Your task to perform on an android device: see tabs open on other devices in the chrome app Image 0: 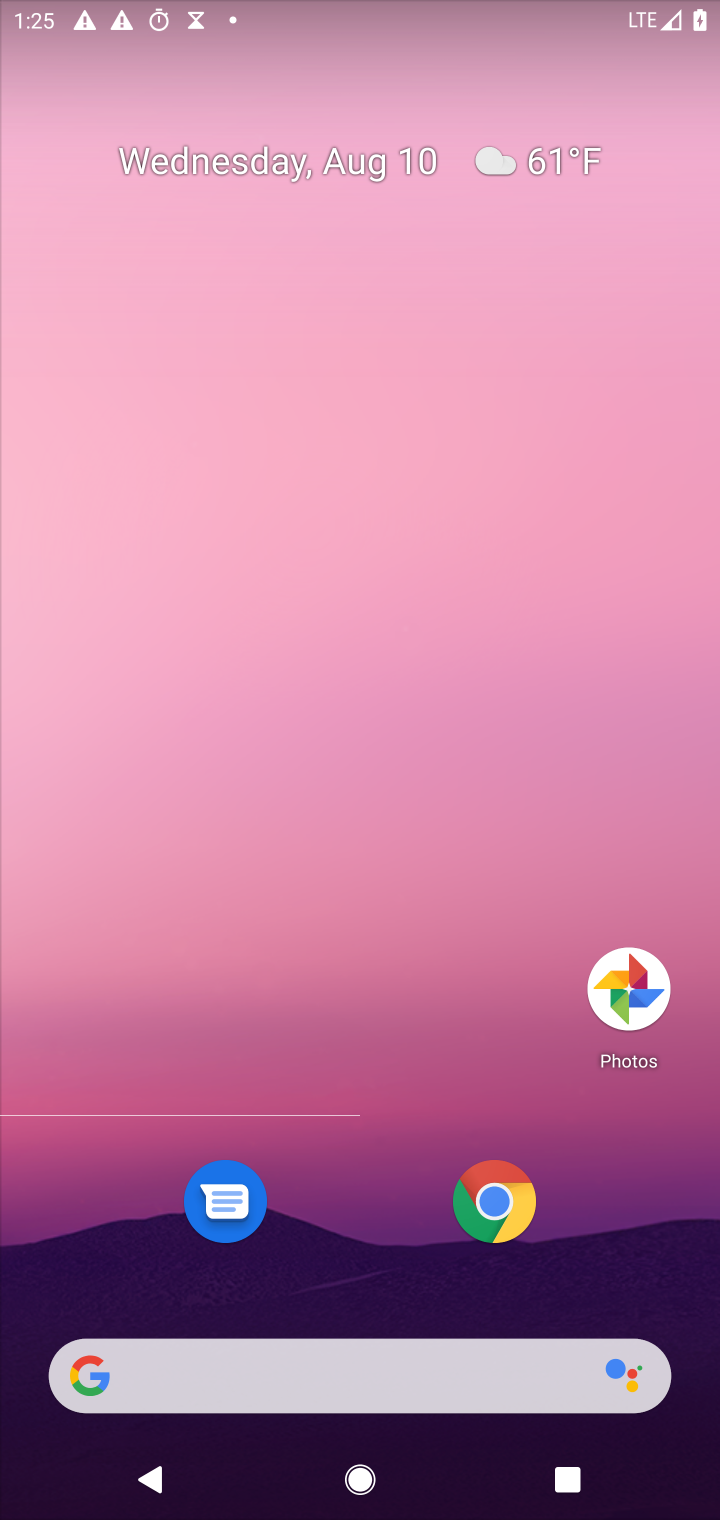
Step 0: press home button
Your task to perform on an android device: see tabs open on other devices in the chrome app Image 1: 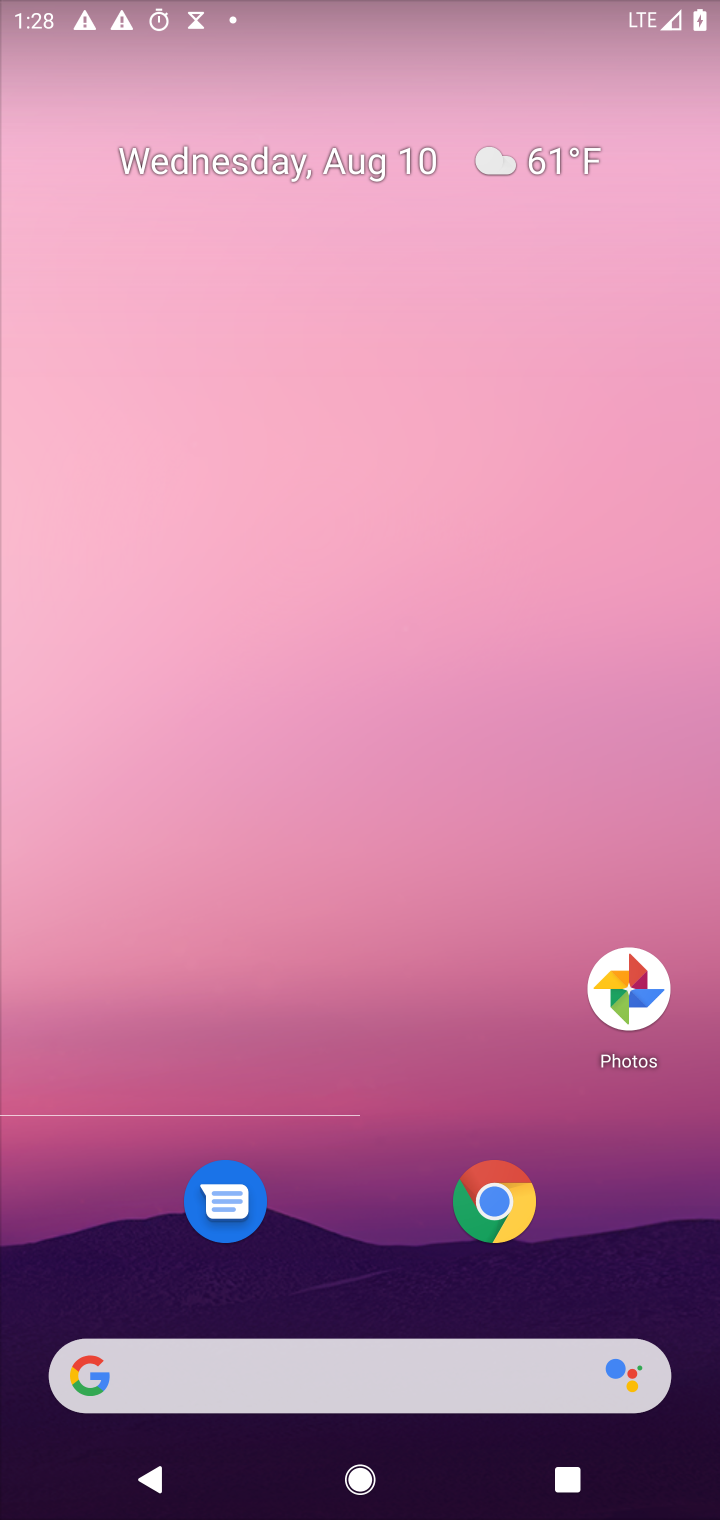
Step 1: click (495, 1201)
Your task to perform on an android device: see tabs open on other devices in the chrome app Image 2: 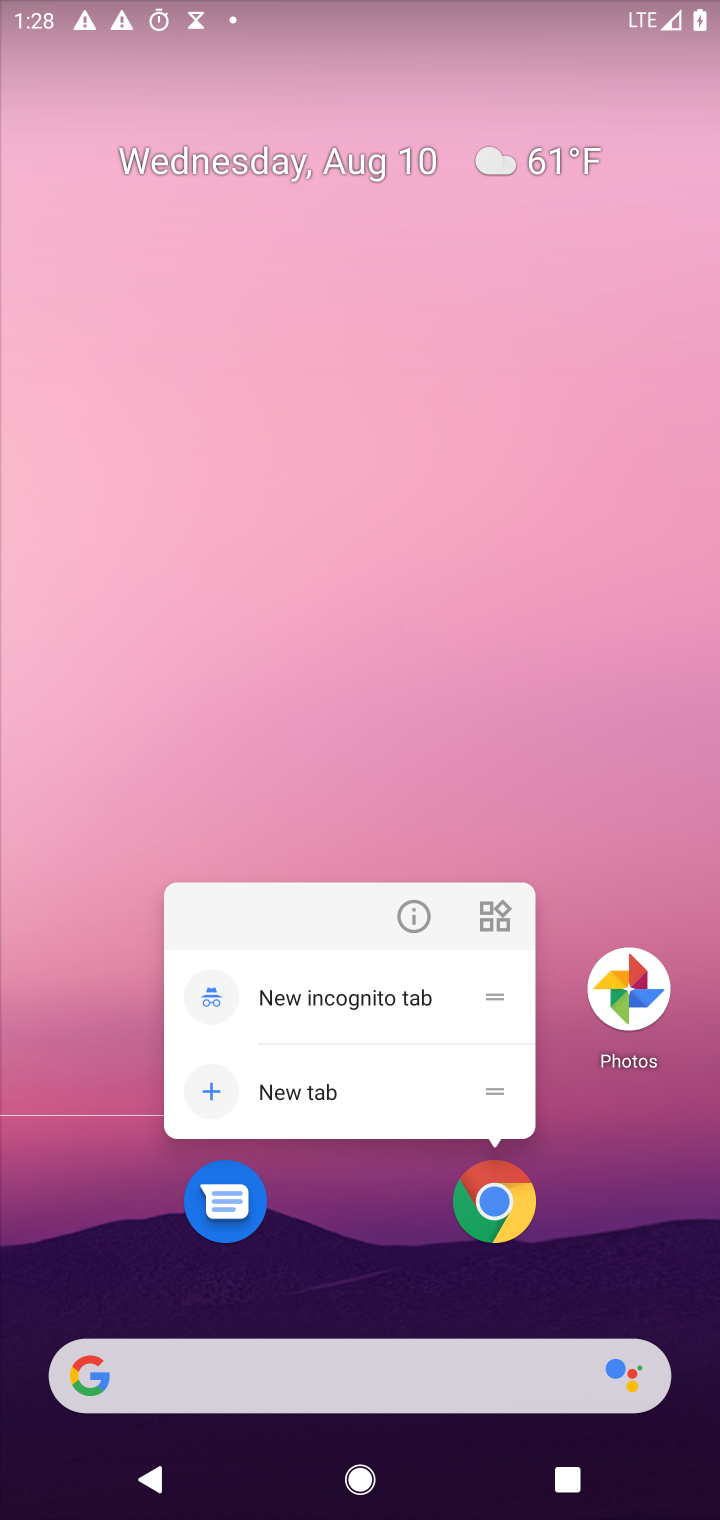
Step 2: click (480, 1193)
Your task to perform on an android device: see tabs open on other devices in the chrome app Image 3: 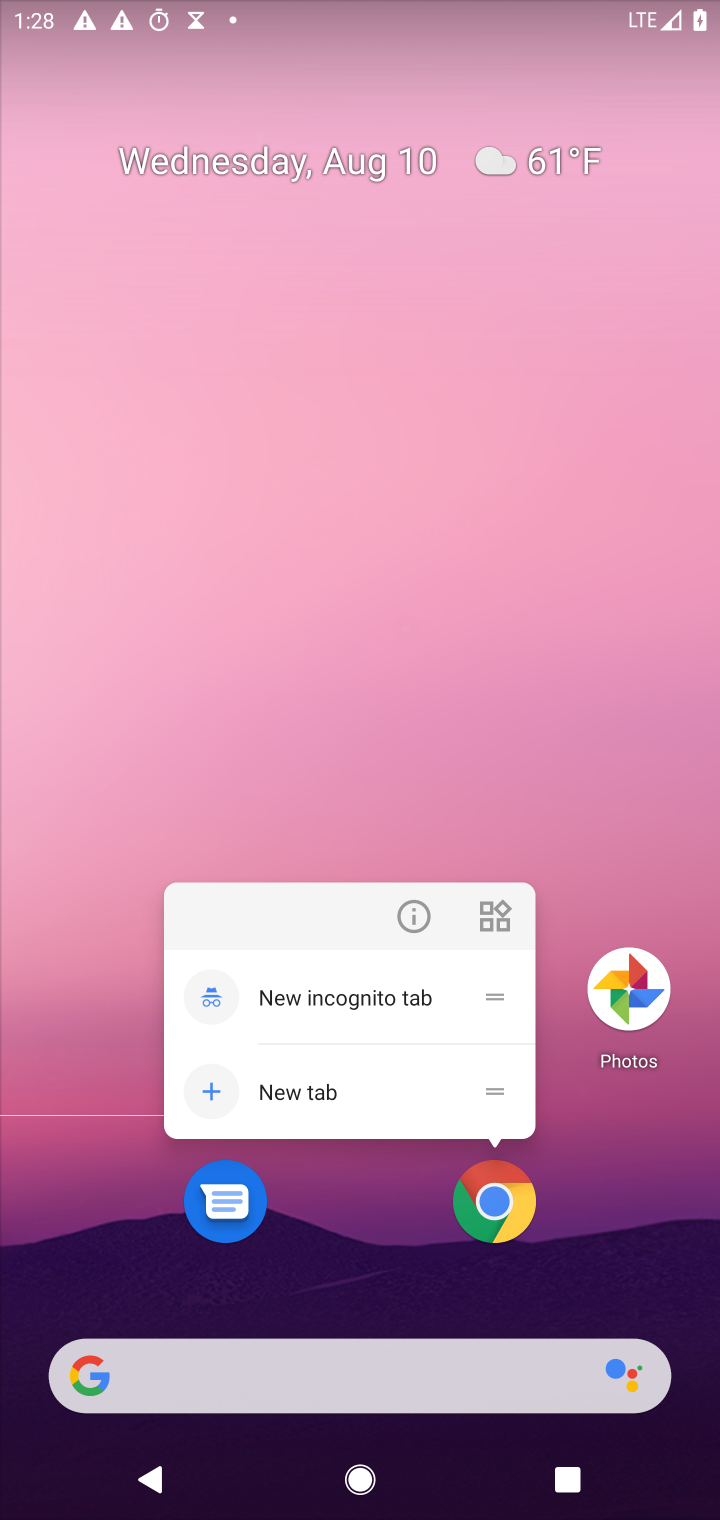
Step 3: click (475, 1191)
Your task to perform on an android device: see tabs open on other devices in the chrome app Image 4: 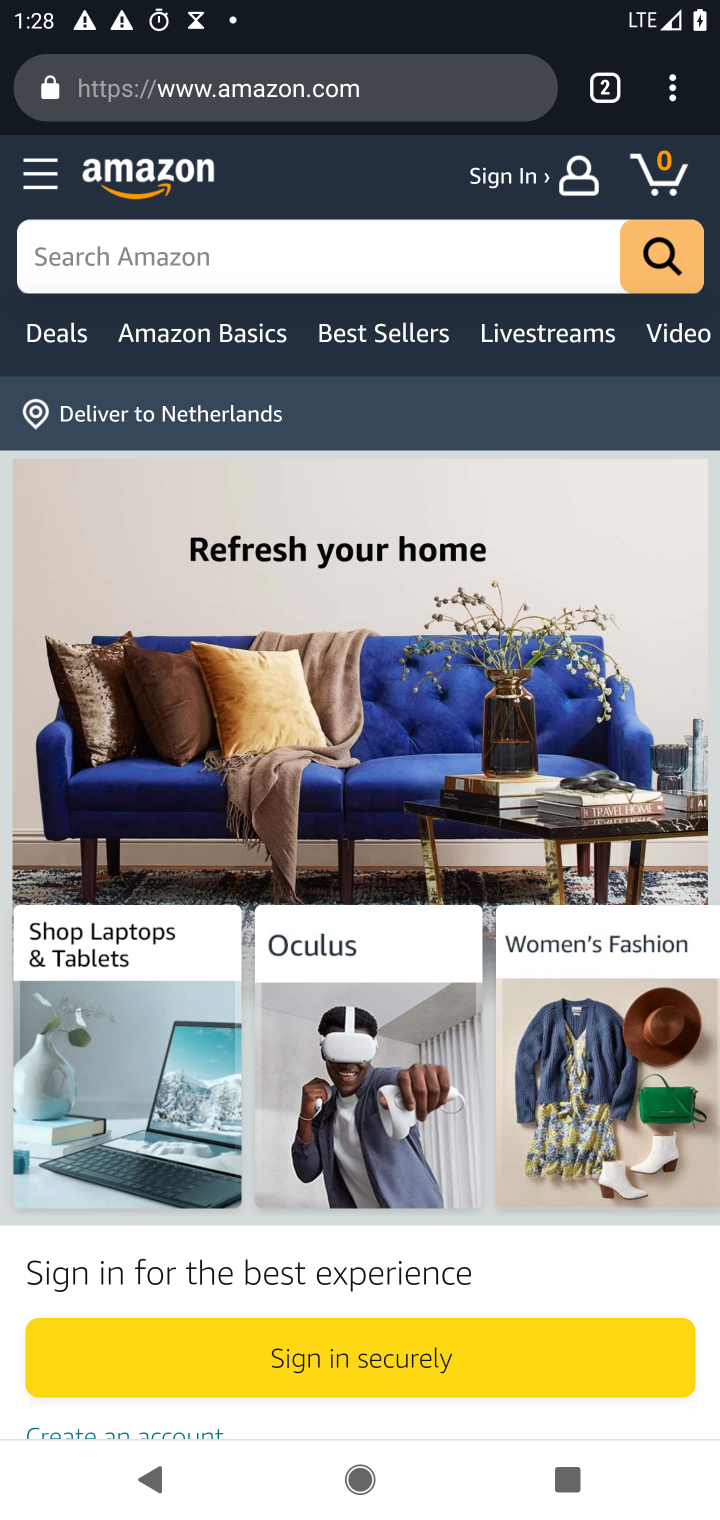
Step 4: task complete